Your task to perform on an android device: open a bookmark in the chrome app Image 0: 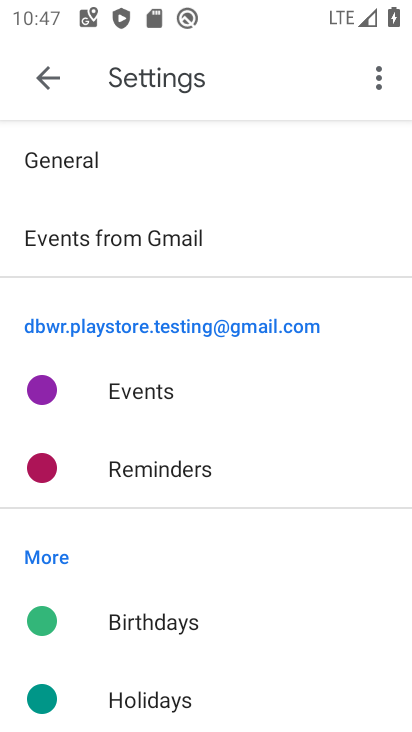
Step 0: press home button
Your task to perform on an android device: open a bookmark in the chrome app Image 1: 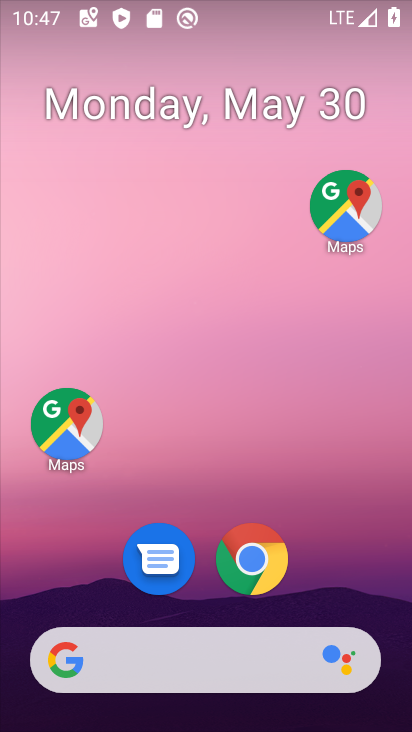
Step 1: drag from (359, 541) to (275, 137)
Your task to perform on an android device: open a bookmark in the chrome app Image 2: 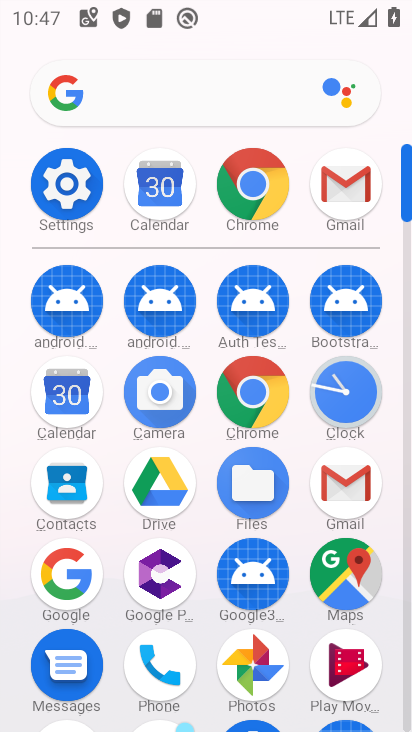
Step 2: click (259, 397)
Your task to perform on an android device: open a bookmark in the chrome app Image 3: 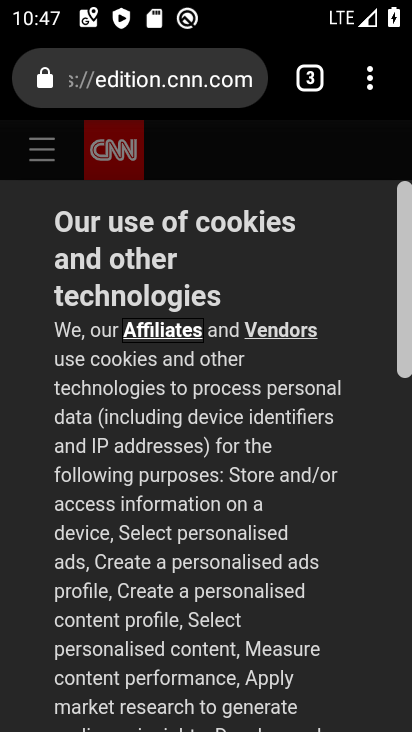
Step 3: drag from (374, 84) to (281, 292)
Your task to perform on an android device: open a bookmark in the chrome app Image 4: 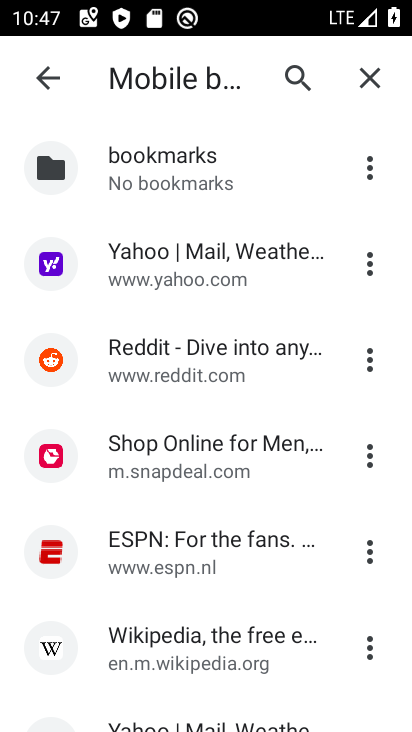
Step 4: click (189, 272)
Your task to perform on an android device: open a bookmark in the chrome app Image 5: 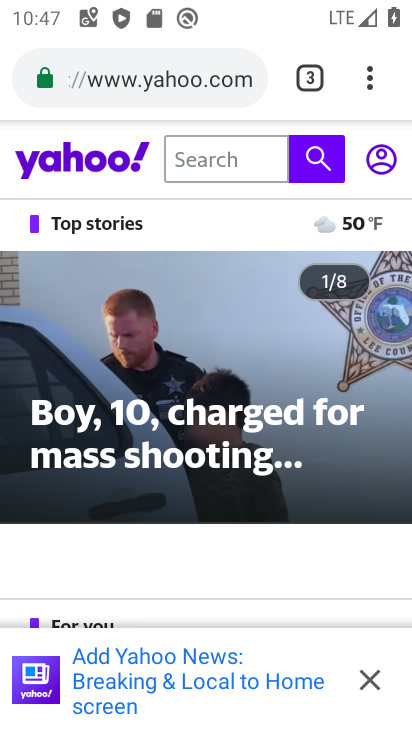
Step 5: task complete